Your task to perform on an android device: Go to Google Image 0: 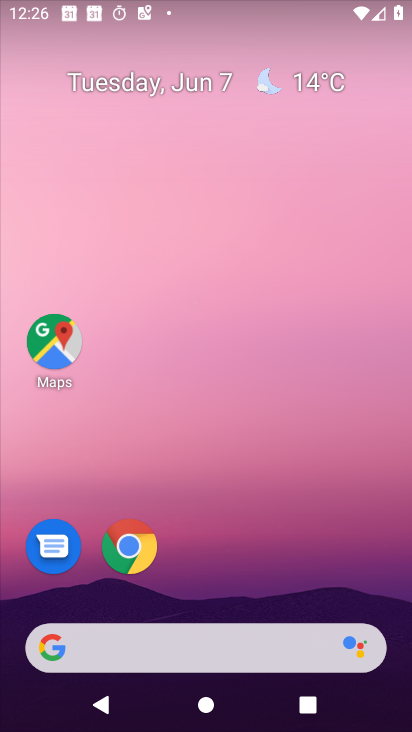
Step 0: click (47, 645)
Your task to perform on an android device: Go to Google Image 1: 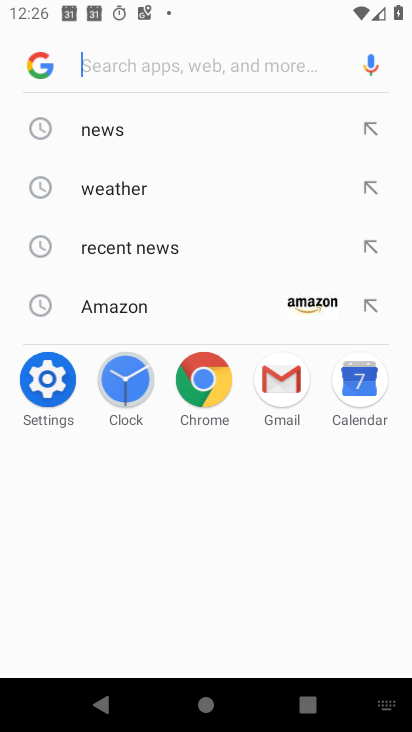
Step 1: click (25, 59)
Your task to perform on an android device: Go to Google Image 2: 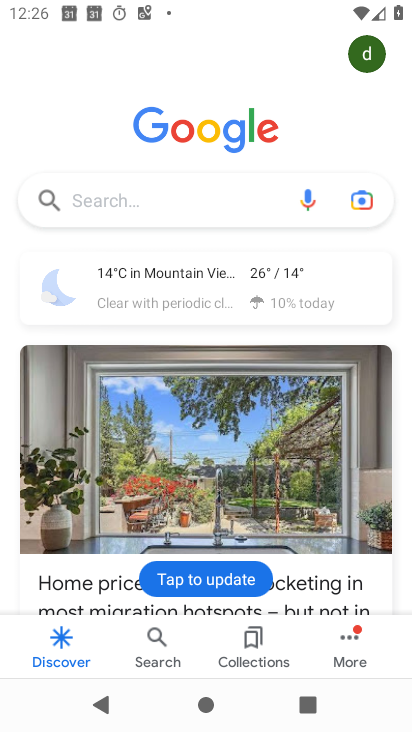
Step 2: task complete